Your task to perform on an android device: Open notification settings Image 0: 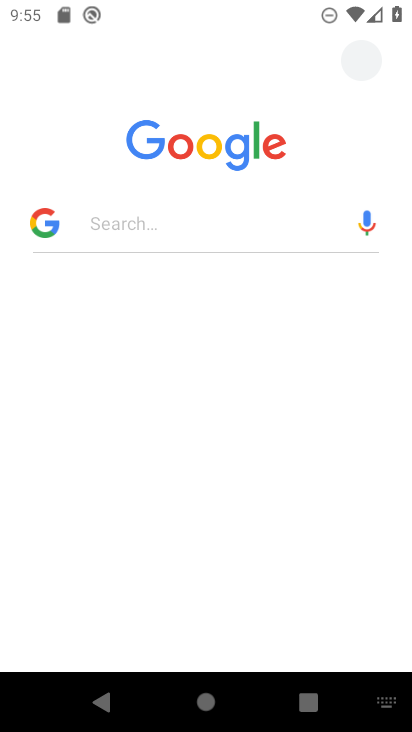
Step 0: press home button
Your task to perform on an android device: Open notification settings Image 1: 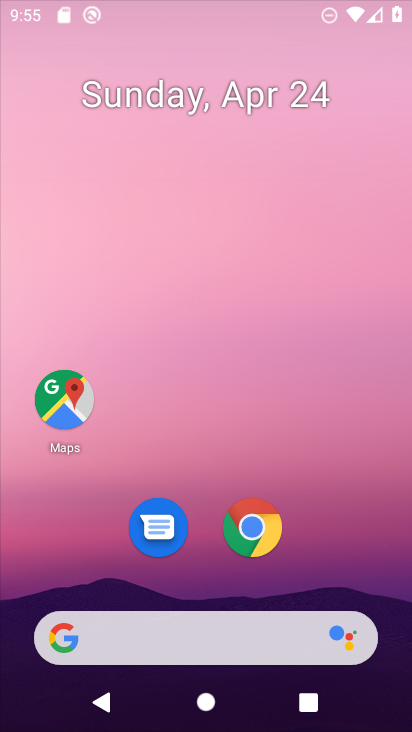
Step 1: drag from (400, 630) to (223, 87)
Your task to perform on an android device: Open notification settings Image 2: 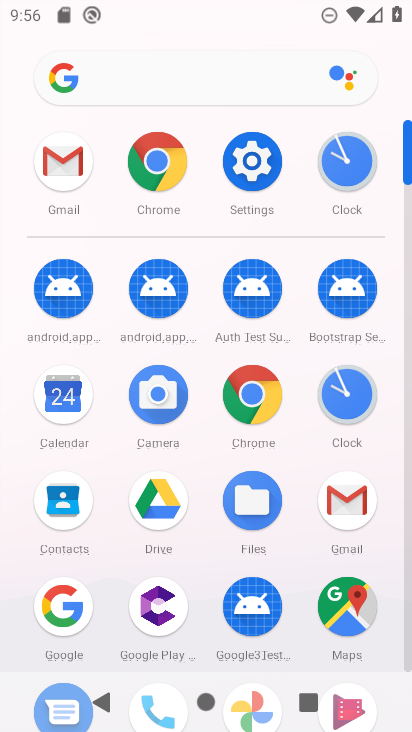
Step 2: click (256, 174)
Your task to perform on an android device: Open notification settings Image 3: 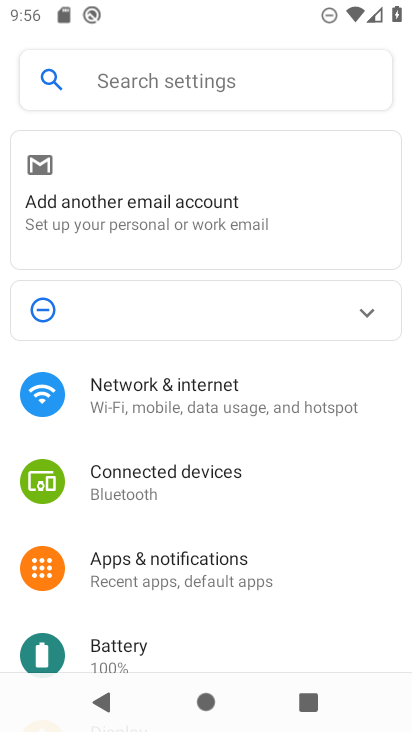
Step 3: click (233, 575)
Your task to perform on an android device: Open notification settings Image 4: 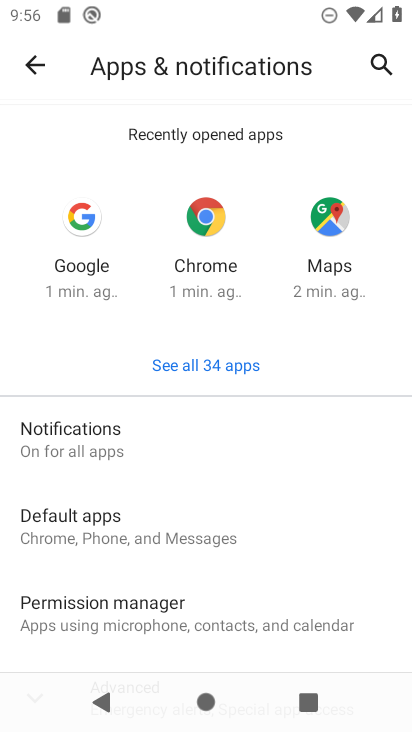
Step 4: click (196, 419)
Your task to perform on an android device: Open notification settings Image 5: 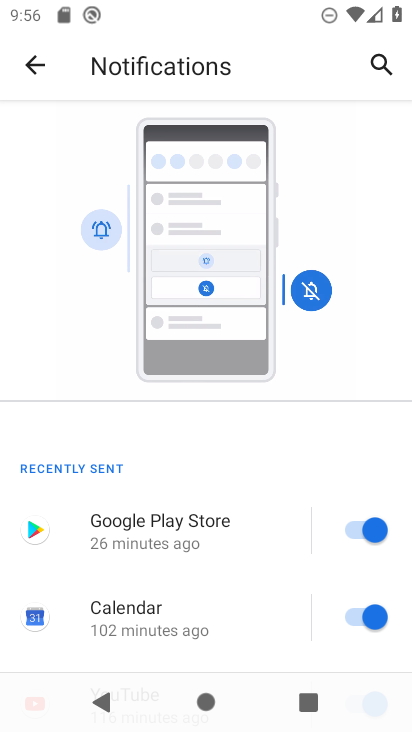
Step 5: task complete